Your task to perform on an android device: Go to Google maps Image 0: 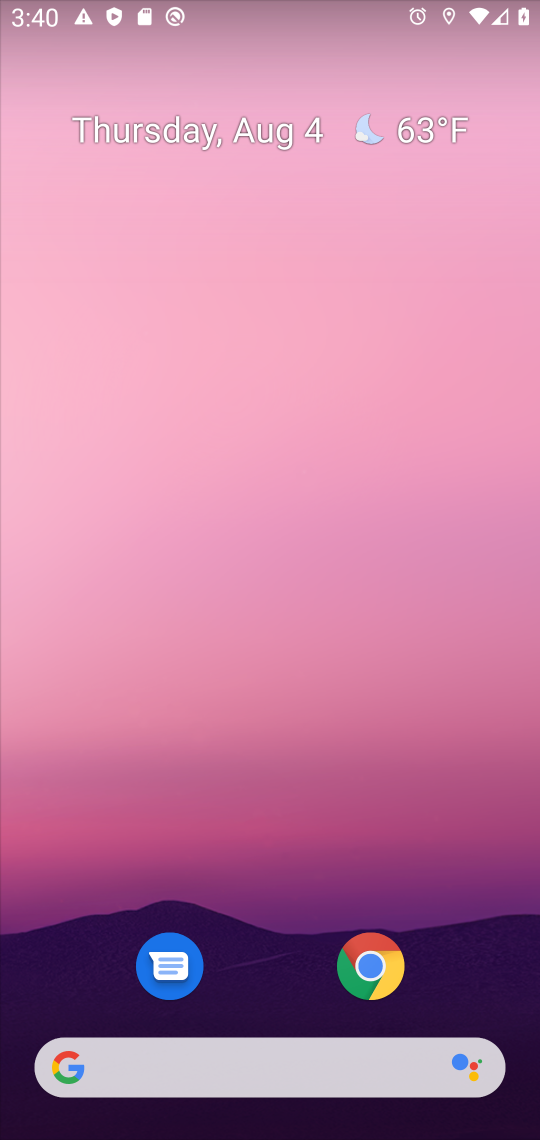
Step 0: press home button
Your task to perform on an android device: Go to Google maps Image 1: 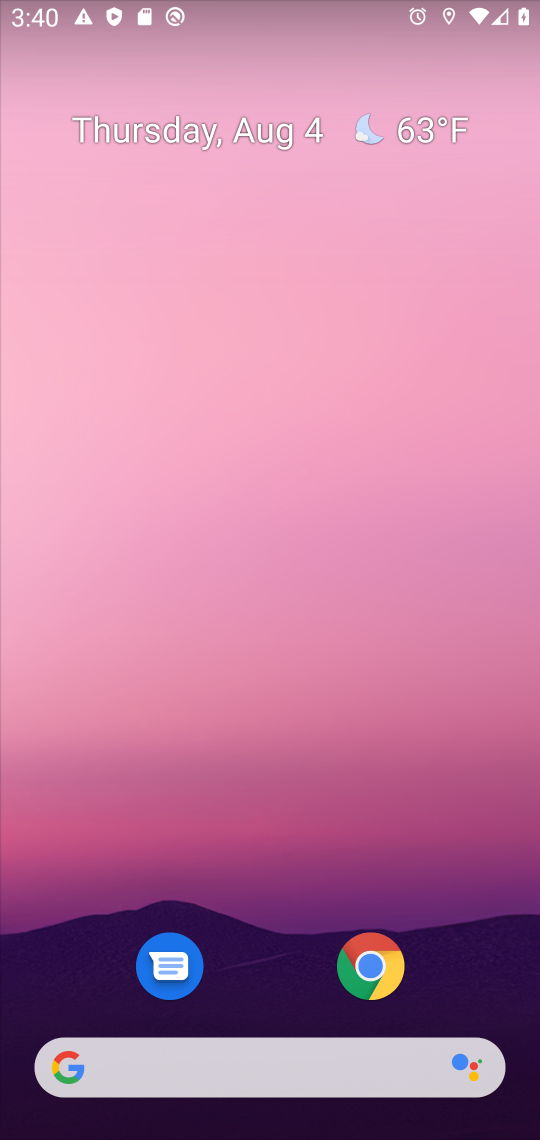
Step 1: drag from (308, 919) to (298, 0)
Your task to perform on an android device: Go to Google maps Image 2: 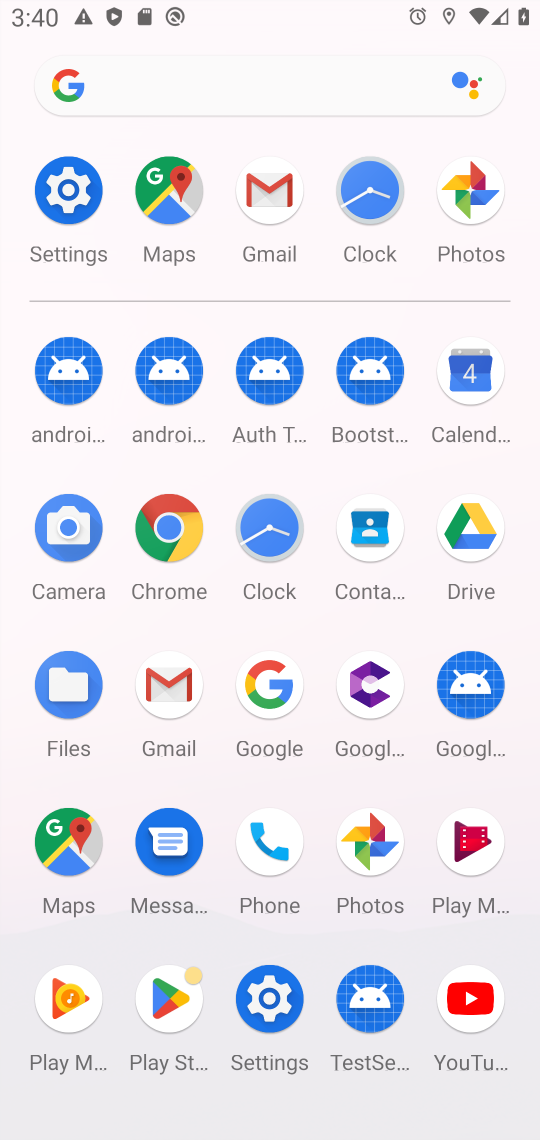
Step 2: click (166, 216)
Your task to perform on an android device: Go to Google maps Image 3: 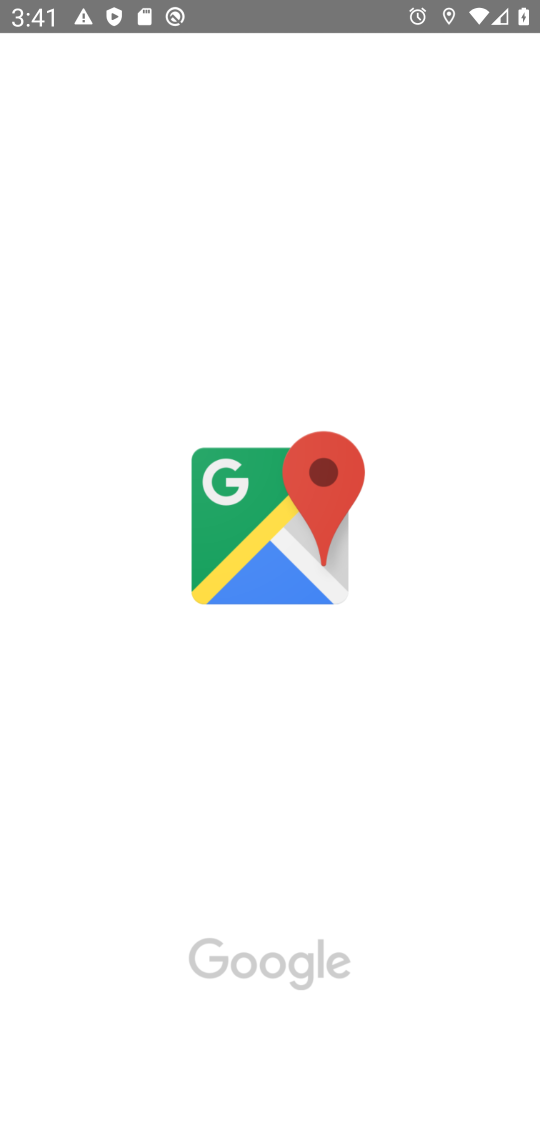
Step 3: task complete